Your task to perform on an android device: snooze an email in the gmail app Image 0: 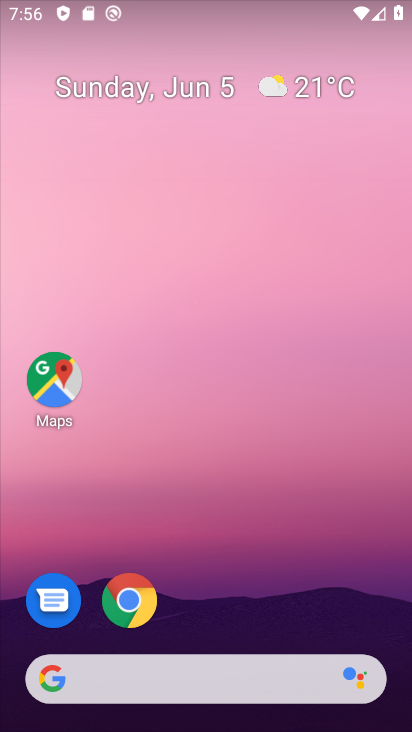
Step 0: drag from (291, 621) to (368, 2)
Your task to perform on an android device: snooze an email in the gmail app Image 1: 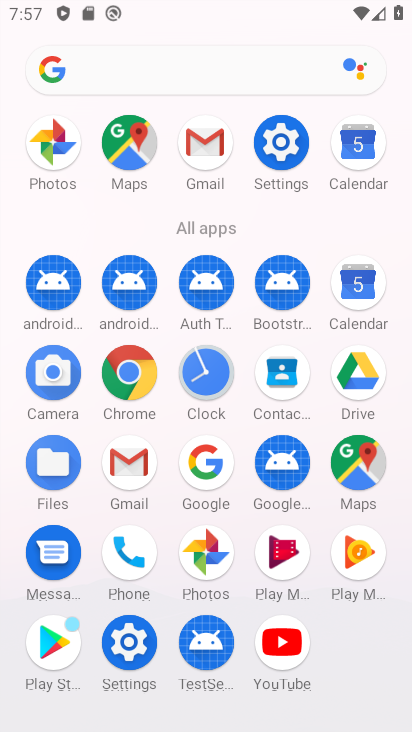
Step 1: click (215, 142)
Your task to perform on an android device: snooze an email in the gmail app Image 2: 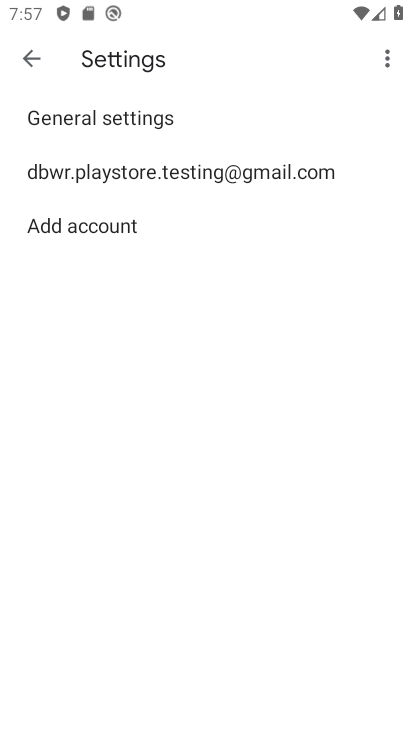
Step 2: click (37, 53)
Your task to perform on an android device: snooze an email in the gmail app Image 3: 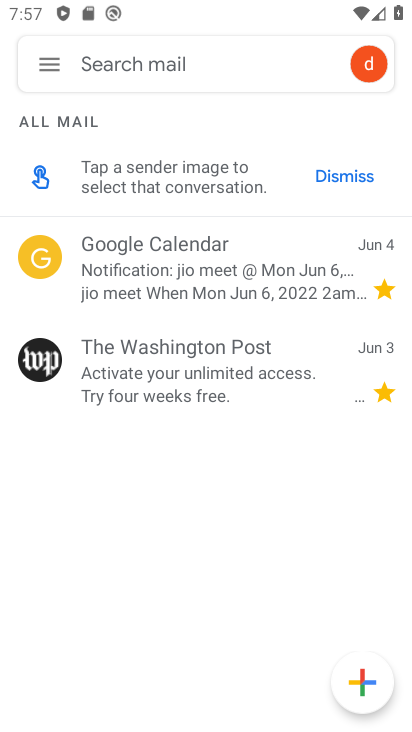
Step 3: click (64, 72)
Your task to perform on an android device: snooze an email in the gmail app Image 4: 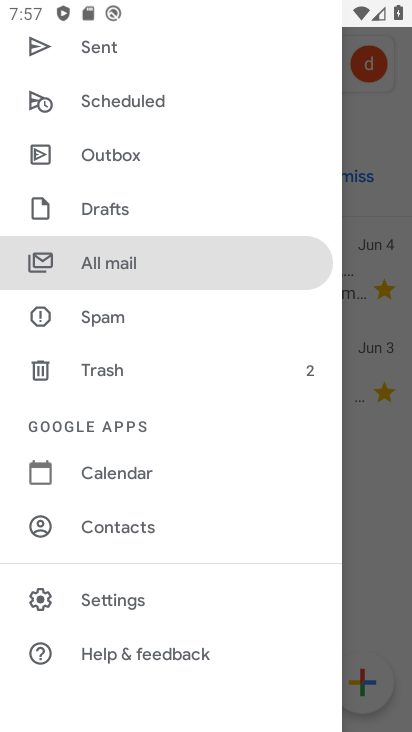
Step 4: click (145, 265)
Your task to perform on an android device: snooze an email in the gmail app Image 5: 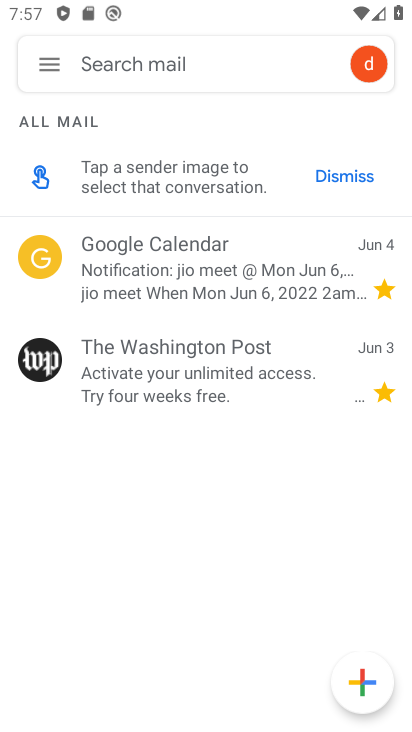
Step 5: click (244, 273)
Your task to perform on an android device: snooze an email in the gmail app Image 6: 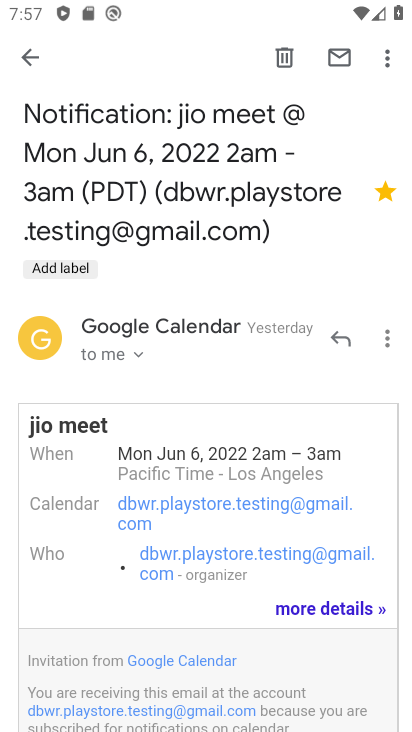
Step 6: click (391, 61)
Your task to perform on an android device: snooze an email in the gmail app Image 7: 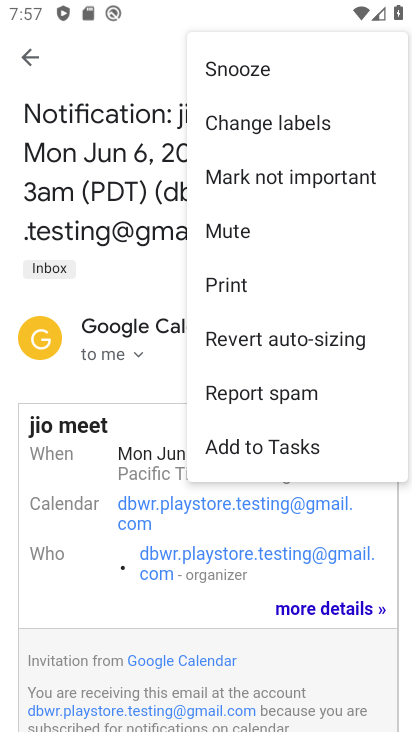
Step 7: click (269, 76)
Your task to perform on an android device: snooze an email in the gmail app Image 8: 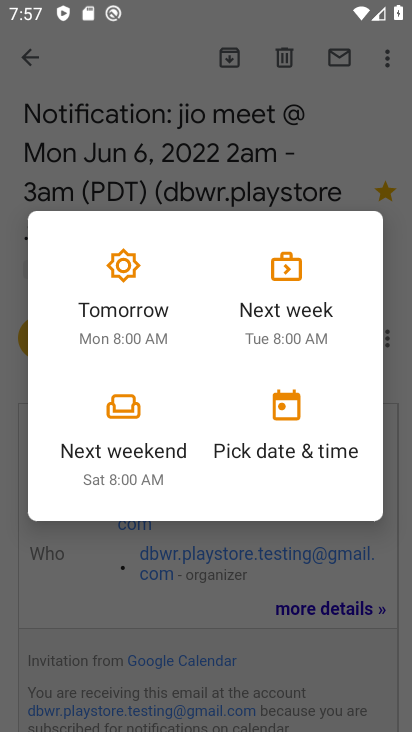
Step 8: click (151, 322)
Your task to perform on an android device: snooze an email in the gmail app Image 9: 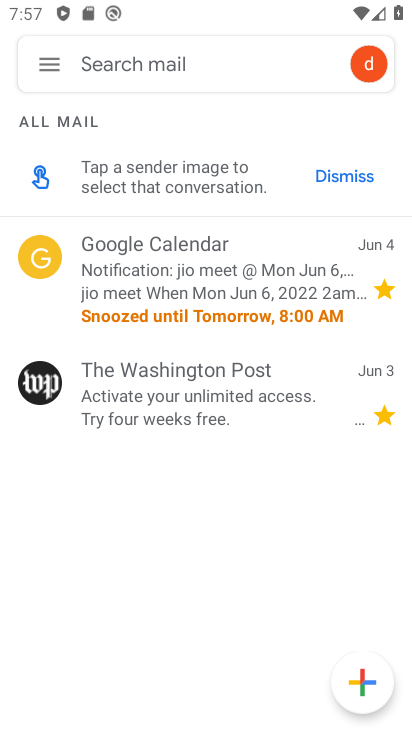
Step 9: task complete